Your task to perform on an android device: toggle translation in the chrome app Image 0: 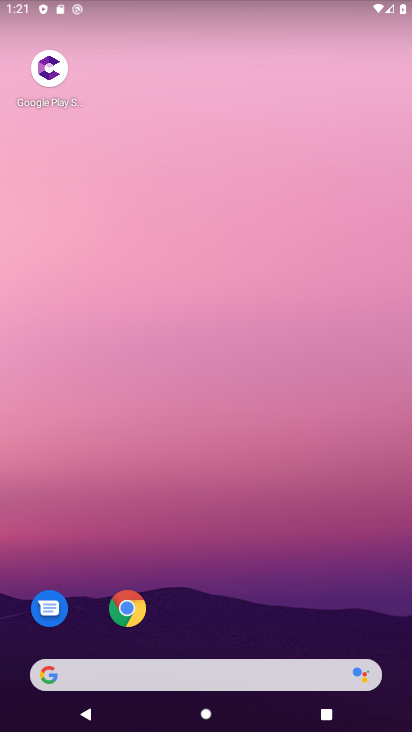
Step 0: drag from (124, 695) to (237, 131)
Your task to perform on an android device: toggle translation in the chrome app Image 1: 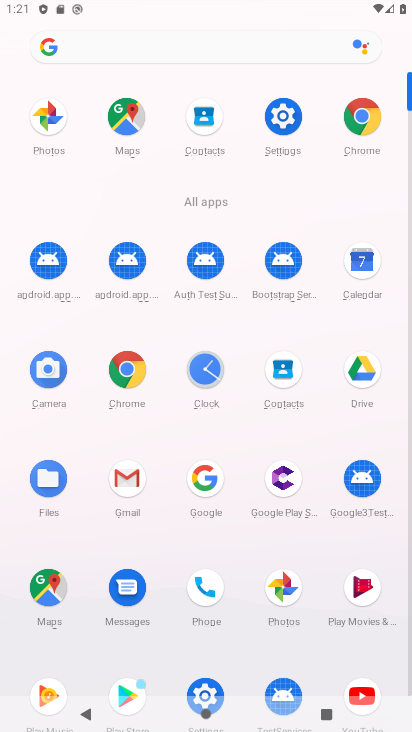
Step 1: click (117, 361)
Your task to perform on an android device: toggle translation in the chrome app Image 2: 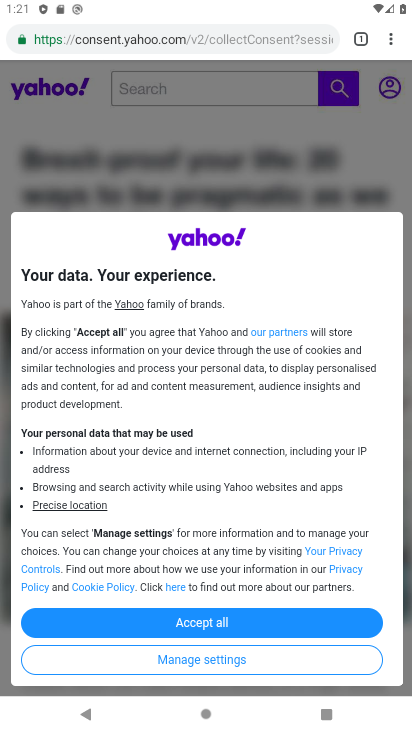
Step 2: drag from (392, 32) to (284, 470)
Your task to perform on an android device: toggle translation in the chrome app Image 3: 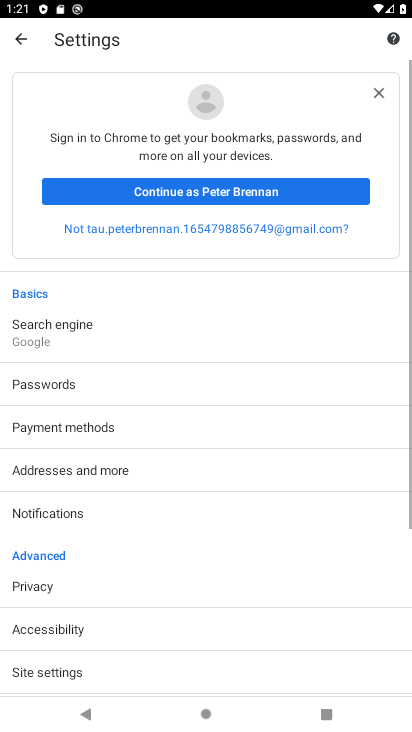
Step 3: drag from (141, 673) to (166, 392)
Your task to perform on an android device: toggle translation in the chrome app Image 4: 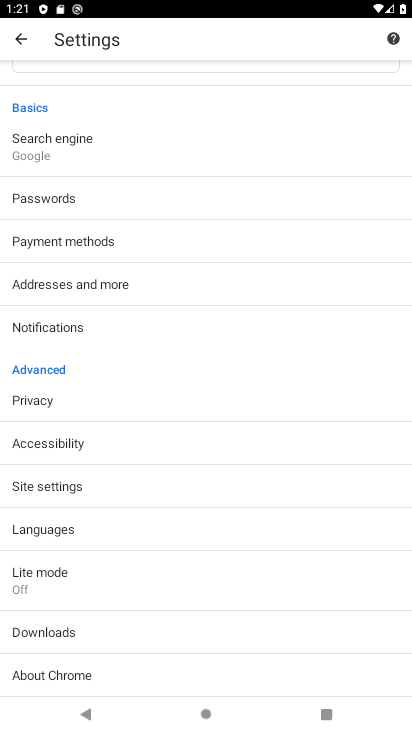
Step 4: click (102, 524)
Your task to perform on an android device: toggle translation in the chrome app Image 5: 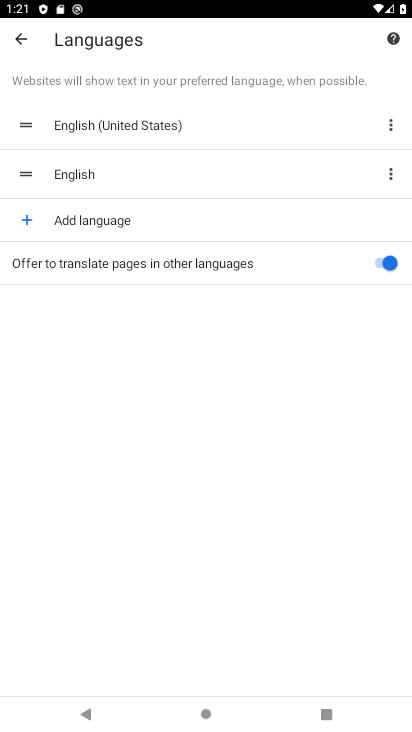
Step 5: click (383, 264)
Your task to perform on an android device: toggle translation in the chrome app Image 6: 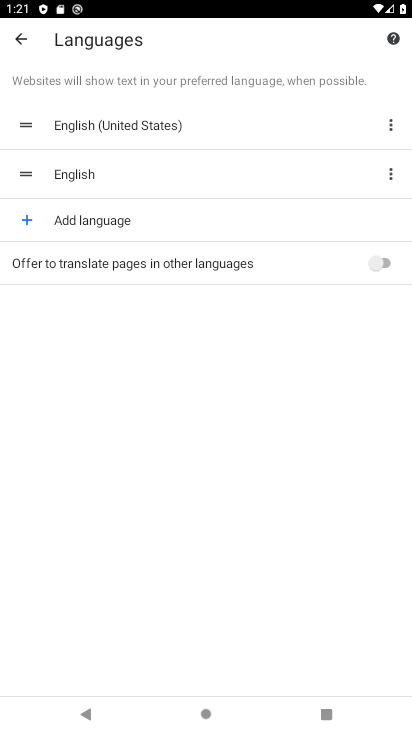
Step 6: task complete